Your task to perform on an android device: What is the news today? Image 0: 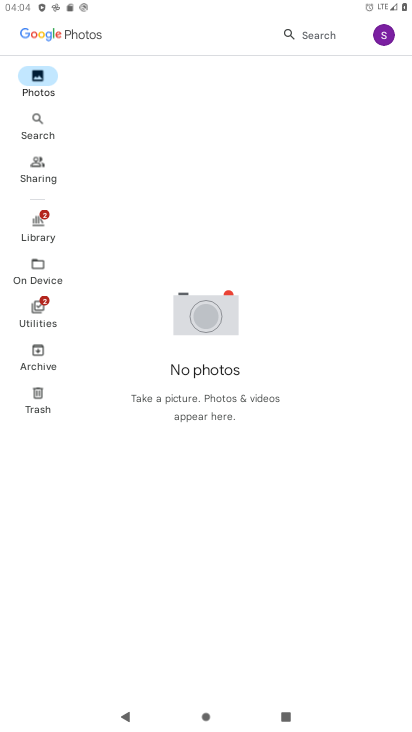
Step 0: press home button
Your task to perform on an android device: What is the news today? Image 1: 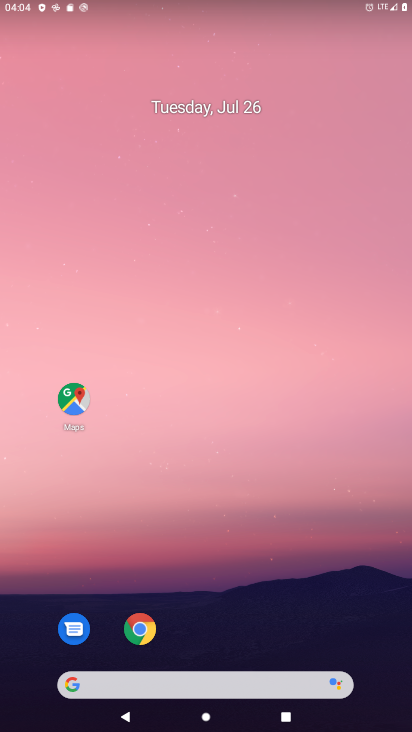
Step 1: drag from (247, 608) to (321, 165)
Your task to perform on an android device: What is the news today? Image 2: 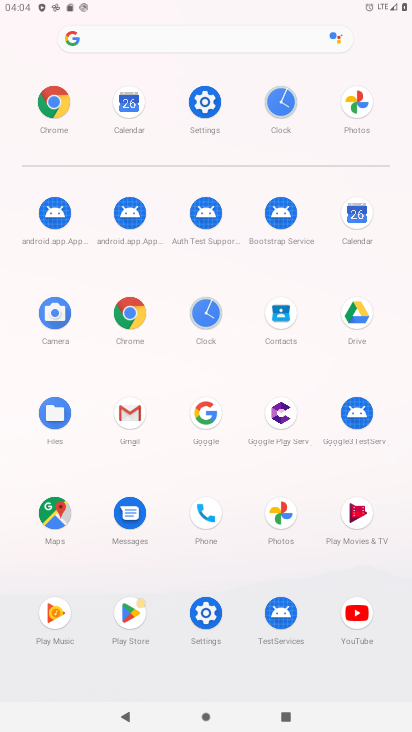
Step 2: click (122, 310)
Your task to perform on an android device: What is the news today? Image 3: 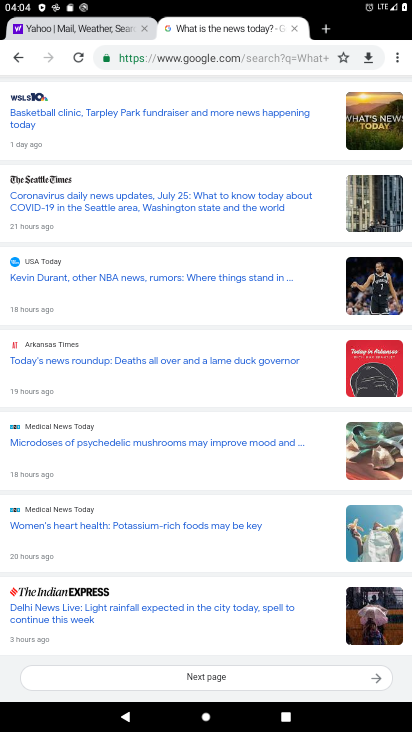
Step 3: click (172, 54)
Your task to perform on an android device: What is the news today? Image 4: 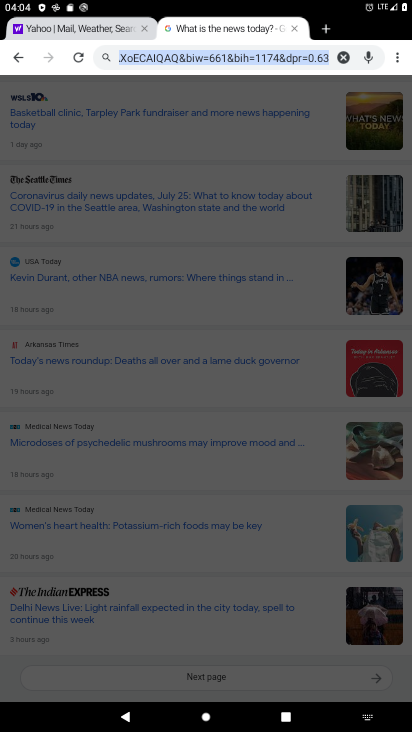
Step 4: type "What is the news today?"
Your task to perform on an android device: What is the news today? Image 5: 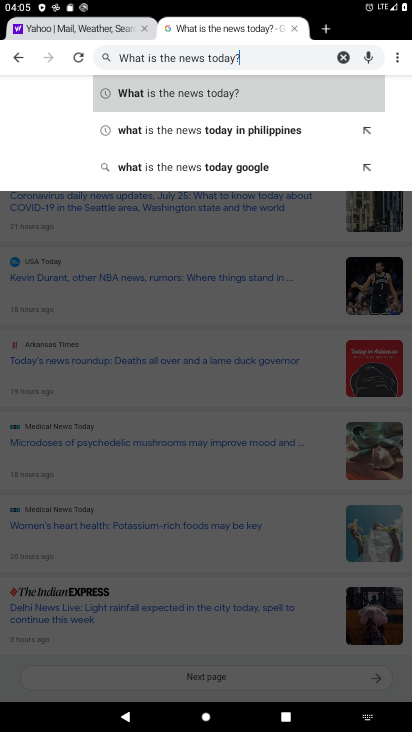
Step 5: click (216, 94)
Your task to perform on an android device: What is the news today? Image 6: 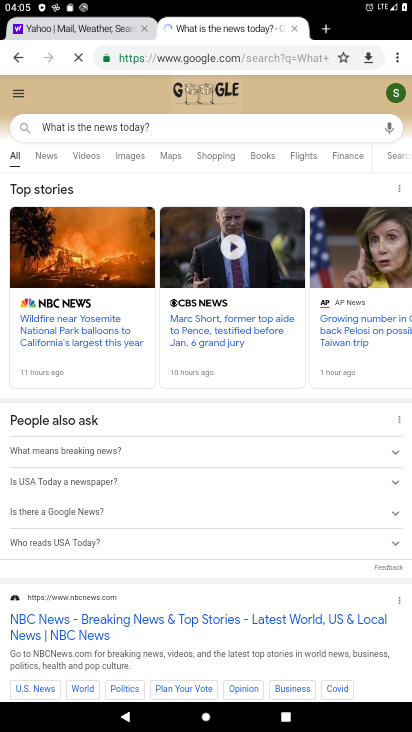
Step 6: task complete